Your task to perform on an android device: Open location settings Image 0: 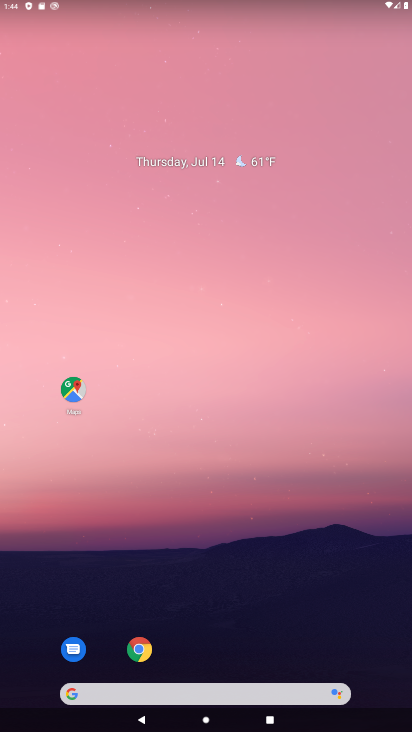
Step 0: drag from (195, 336) to (209, 113)
Your task to perform on an android device: Open location settings Image 1: 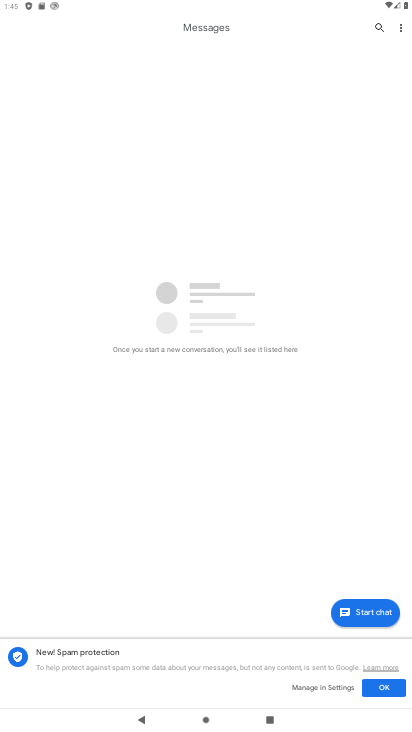
Step 1: press home button
Your task to perform on an android device: Open location settings Image 2: 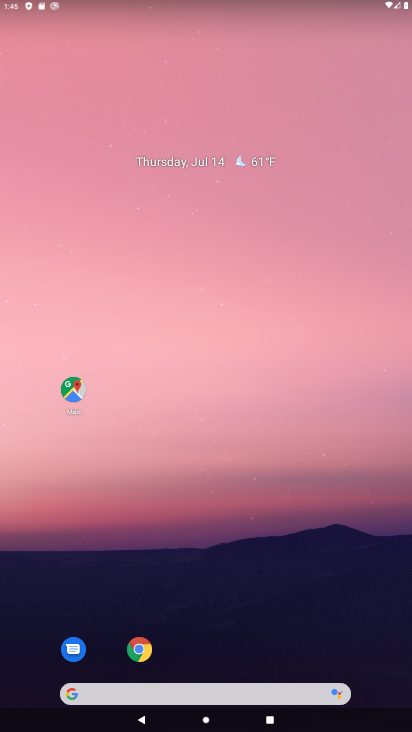
Step 2: drag from (203, 651) to (254, 120)
Your task to perform on an android device: Open location settings Image 3: 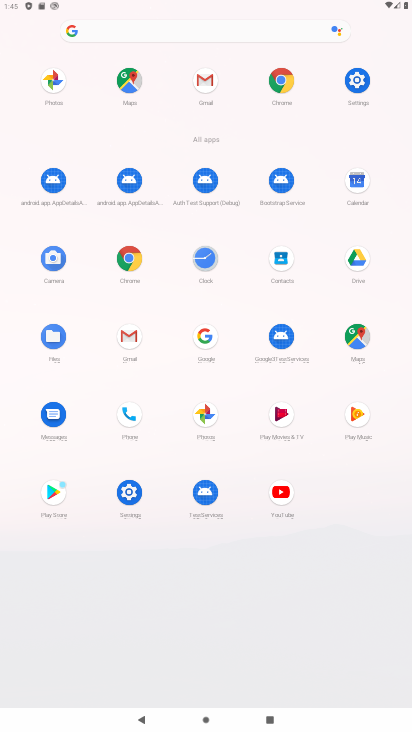
Step 3: click (124, 484)
Your task to perform on an android device: Open location settings Image 4: 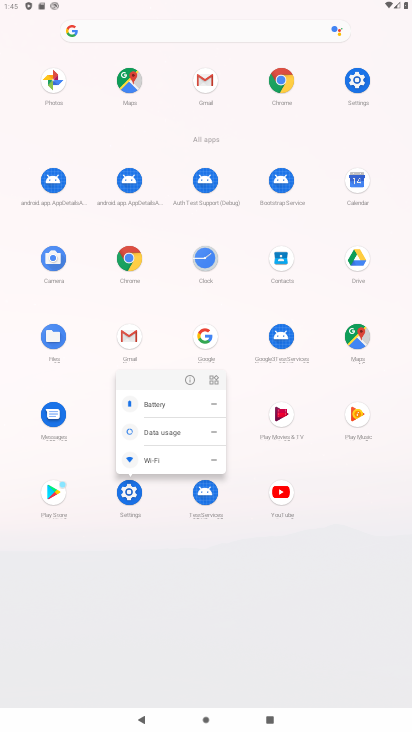
Step 4: click (129, 489)
Your task to perform on an android device: Open location settings Image 5: 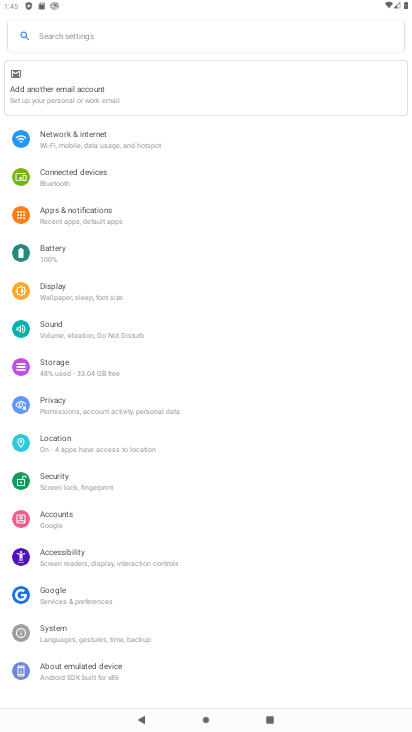
Step 5: click (79, 438)
Your task to perform on an android device: Open location settings Image 6: 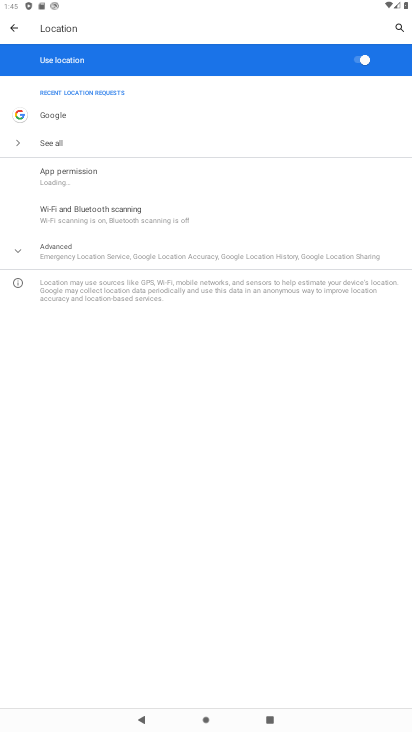
Step 6: click (25, 245)
Your task to perform on an android device: Open location settings Image 7: 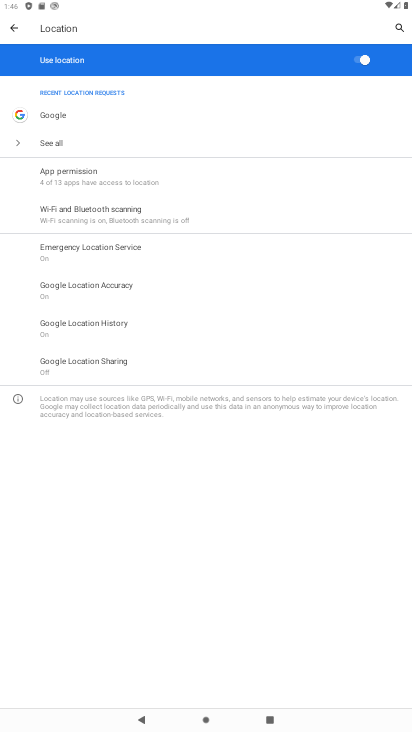
Step 7: task complete